Your task to perform on an android device: add a contact in the contacts app Image 0: 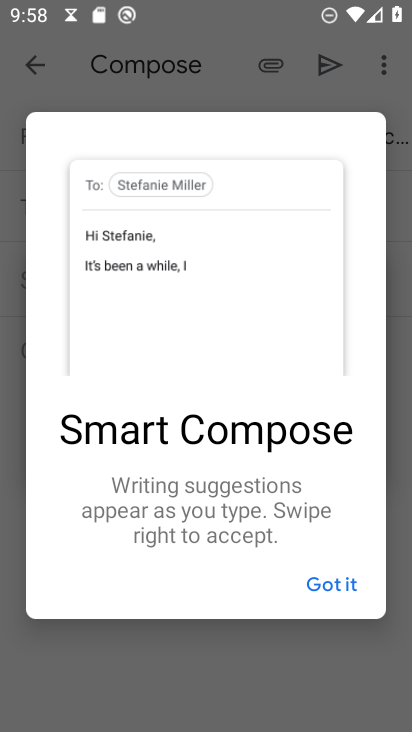
Step 0: press home button
Your task to perform on an android device: add a contact in the contacts app Image 1: 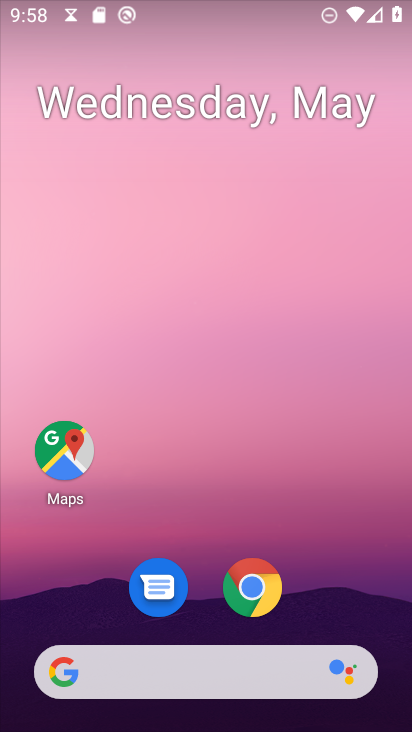
Step 1: drag from (229, 724) to (204, 252)
Your task to perform on an android device: add a contact in the contacts app Image 2: 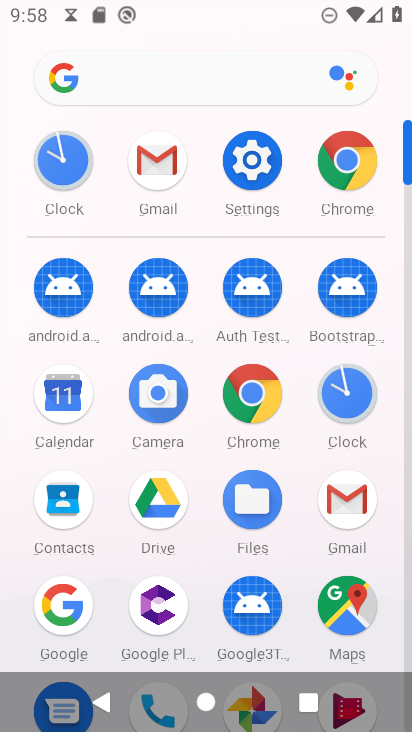
Step 2: click (72, 498)
Your task to perform on an android device: add a contact in the contacts app Image 3: 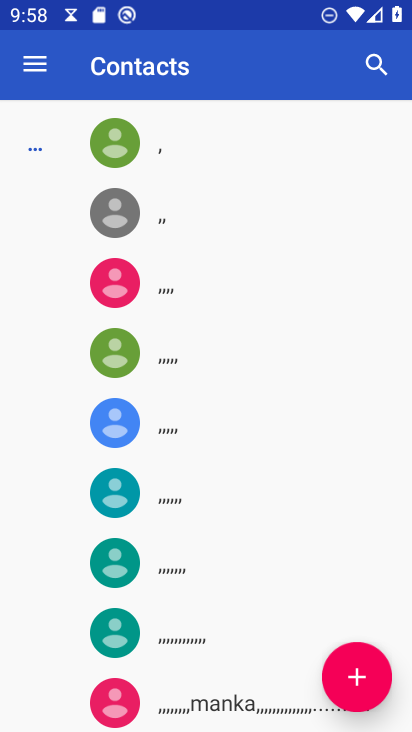
Step 3: click (356, 677)
Your task to perform on an android device: add a contact in the contacts app Image 4: 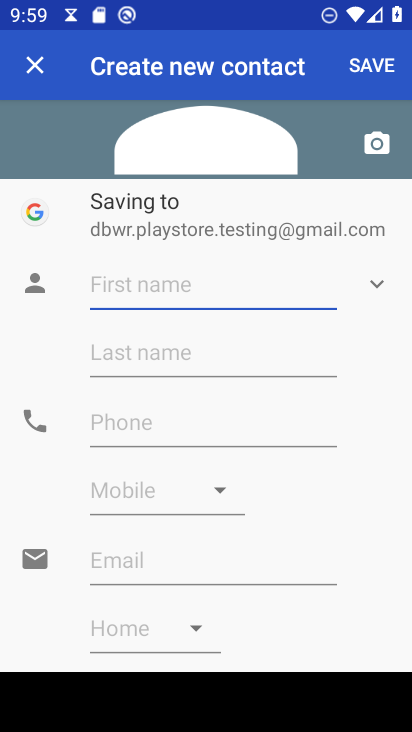
Step 4: type "tang choo"
Your task to perform on an android device: add a contact in the contacts app Image 5: 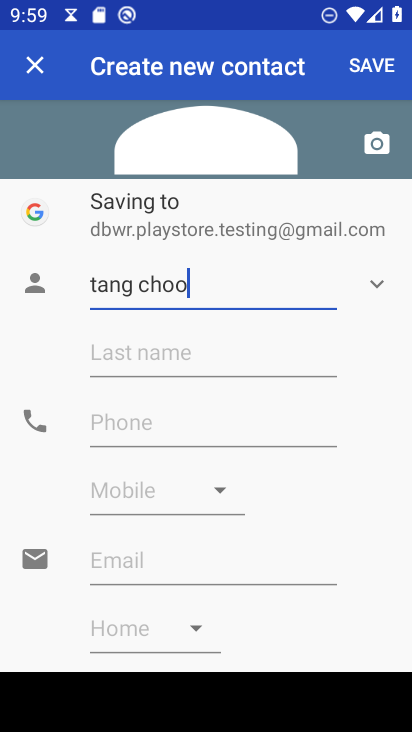
Step 5: click (150, 423)
Your task to perform on an android device: add a contact in the contacts app Image 6: 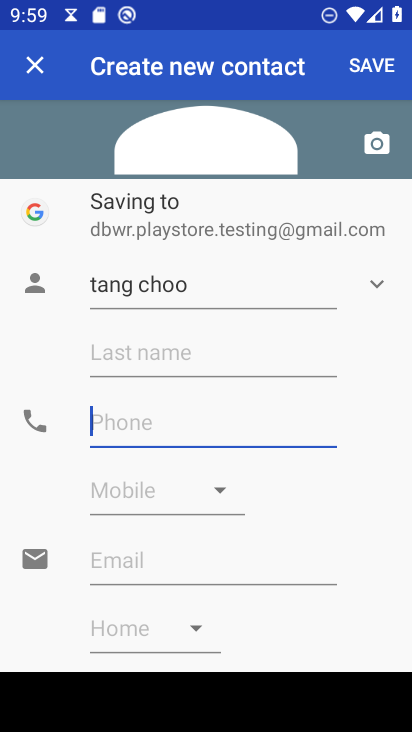
Step 6: type "78904567"
Your task to perform on an android device: add a contact in the contacts app Image 7: 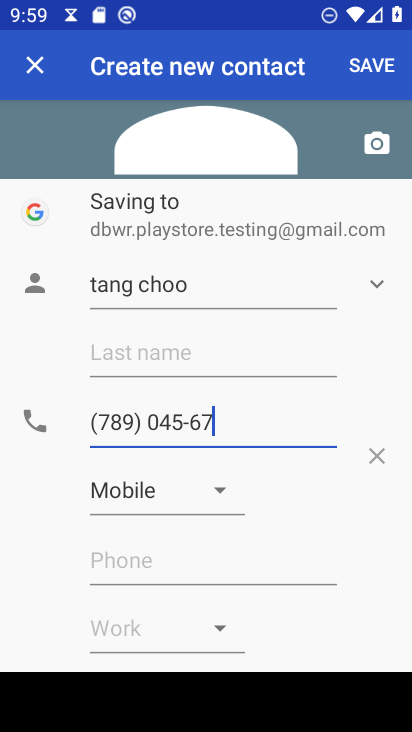
Step 7: click (371, 62)
Your task to perform on an android device: add a contact in the contacts app Image 8: 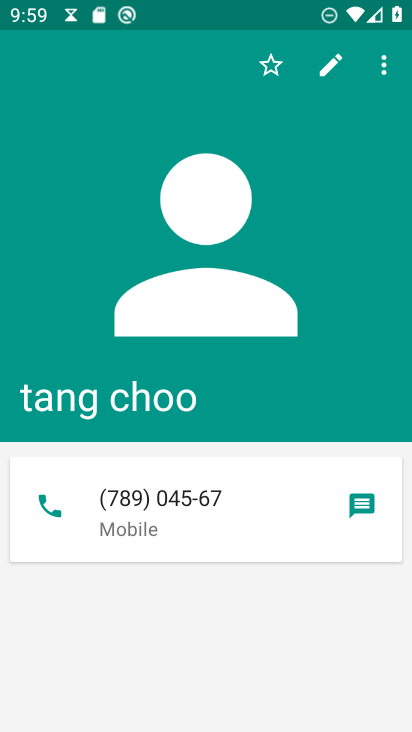
Step 8: task complete